Your task to perform on an android device: stop showing notifications on the lock screen Image 0: 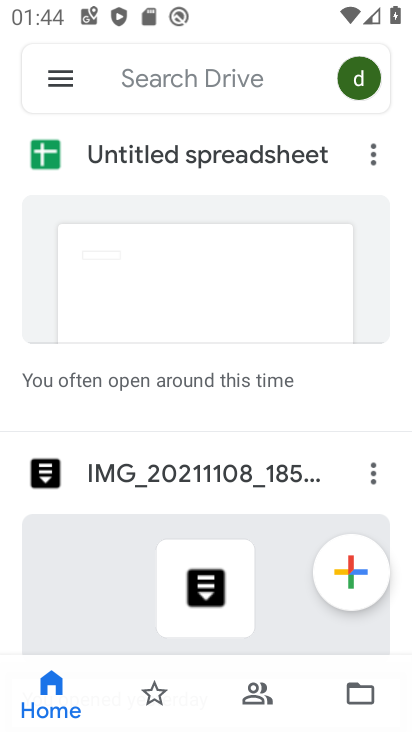
Step 0: press home button
Your task to perform on an android device: stop showing notifications on the lock screen Image 1: 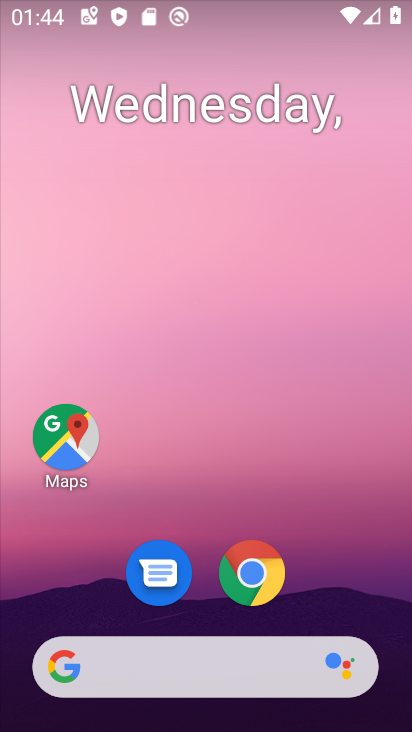
Step 1: drag from (343, 562) to (280, 25)
Your task to perform on an android device: stop showing notifications on the lock screen Image 2: 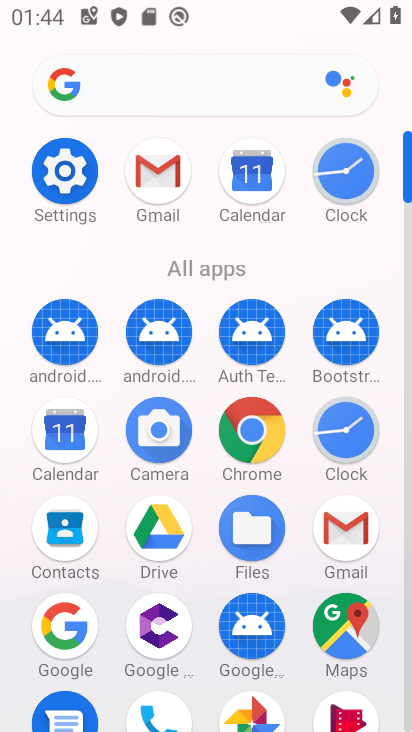
Step 2: click (64, 168)
Your task to perform on an android device: stop showing notifications on the lock screen Image 3: 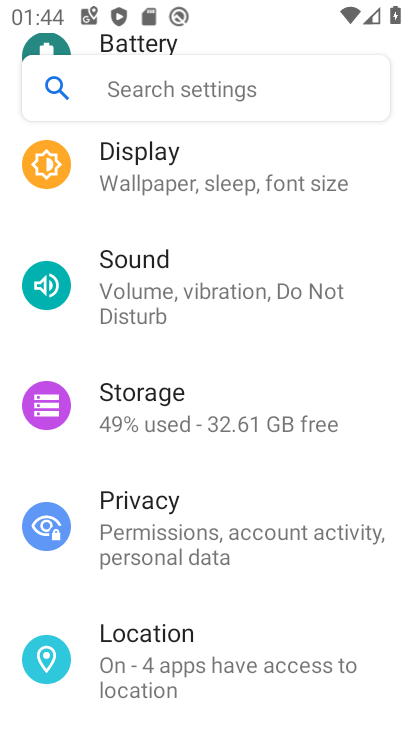
Step 3: drag from (224, 336) to (270, 490)
Your task to perform on an android device: stop showing notifications on the lock screen Image 4: 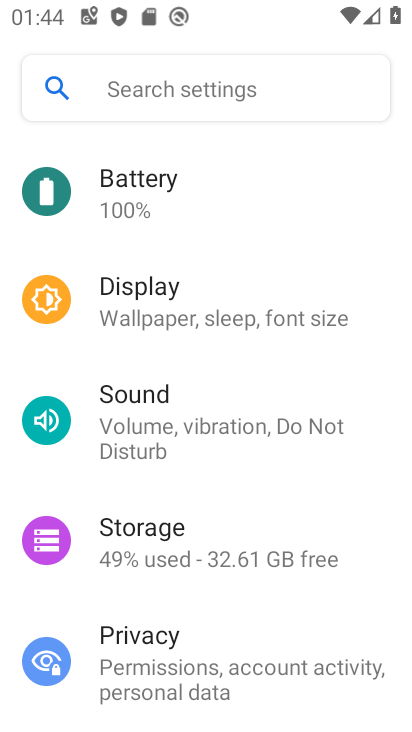
Step 4: drag from (241, 269) to (303, 519)
Your task to perform on an android device: stop showing notifications on the lock screen Image 5: 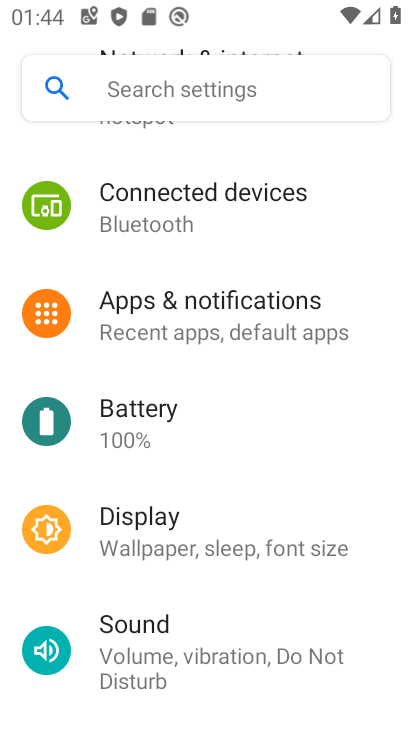
Step 5: click (225, 313)
Your task to perform on an android device: stop showing notifications on the lock screen Image 6: 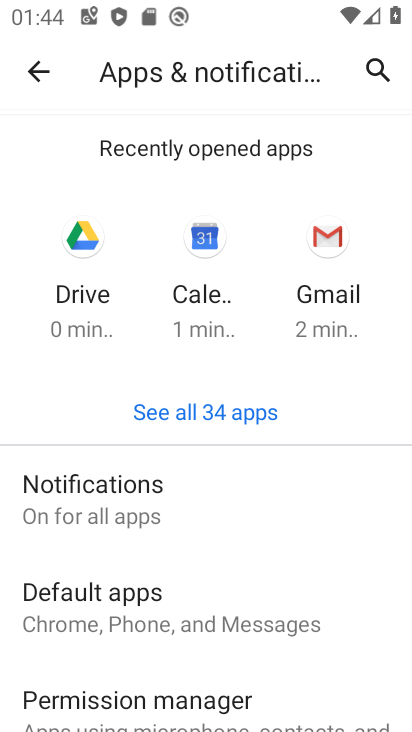
Step 6: click (119, 494)
Your task to perform on an android device: stop showing notifications on the lock screen Image 7: 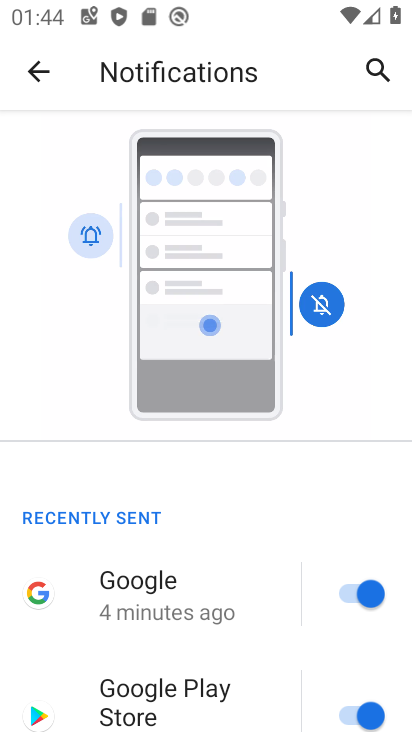
Step 7: drag from (223, 565) to (277, 358)
Your task to perform on an android device: stop showing notifications on the lock screen Image 8: 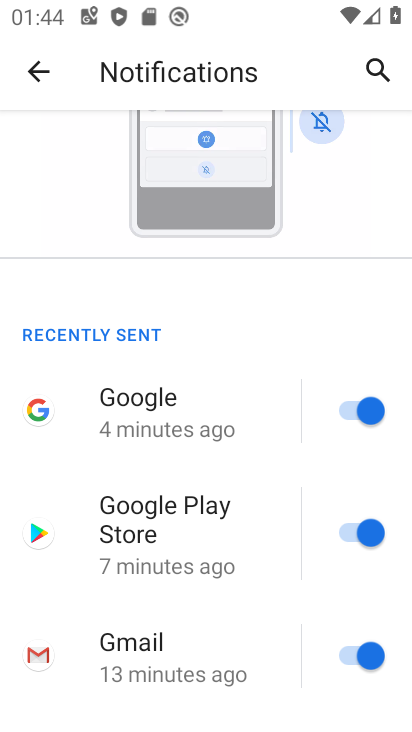
Step 8: drag from (181, 601) to (285, 373)
Your task to perform on an android device: stop showing notifications on the lock screen Image 9: 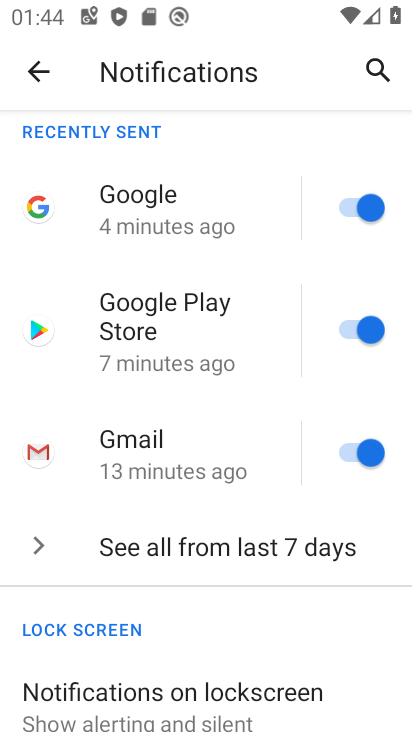
Step 9: drag from (185, 599) to (263, 469)
Your task to perform on an android device: stop showing notifications on the lock screen Image 10: 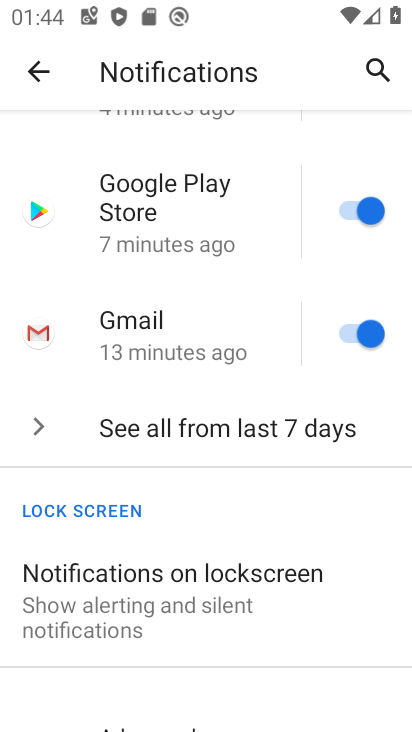
Step 10: click (169, 575)
Your task to perform on an android device: stop showing notifications on the lock screen Image 11: 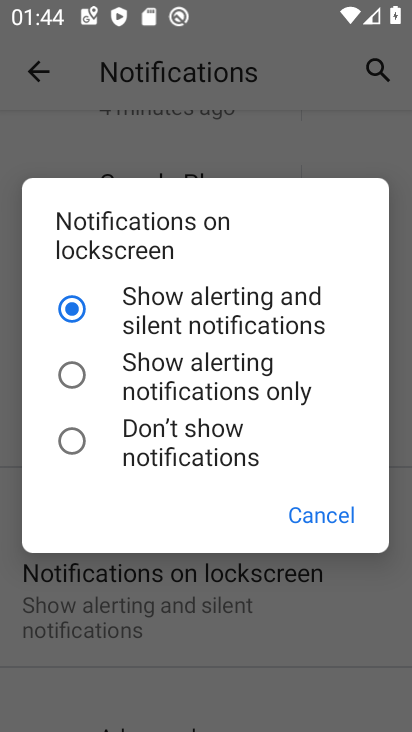
Step 11: click (73, 441)
Your task to perform on an android device: stop showing notifications on the lock screen Image 12: 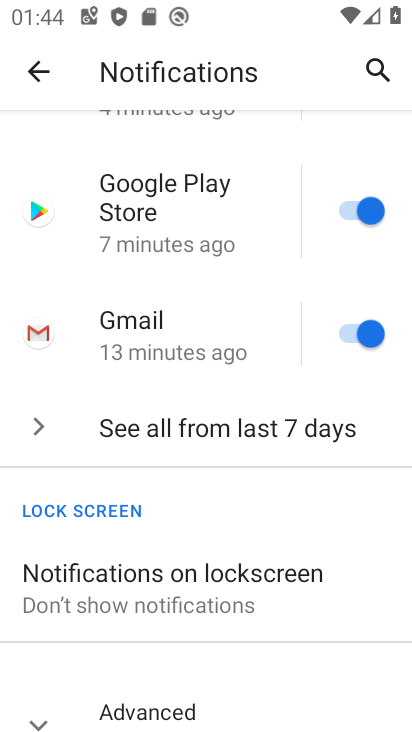
Step 12: task complete